Your task to perform on an android device: Show me productivity apps on the Play Store Image 0: 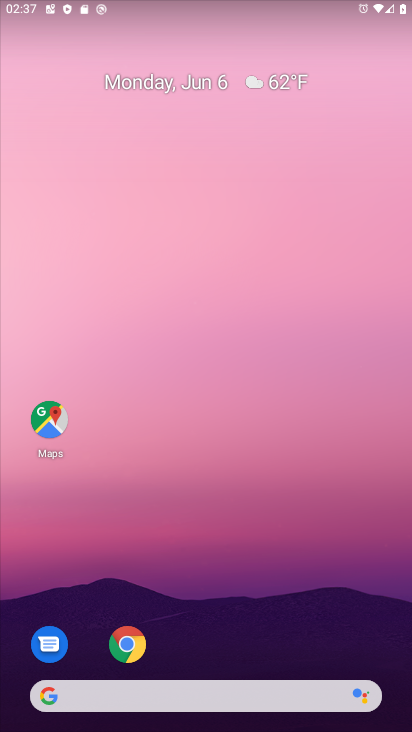
Step 0: drag from (144, 727) to (54, 108)
Your task to perform on an android device: Show me productivity apps on the Play Store Image 1: 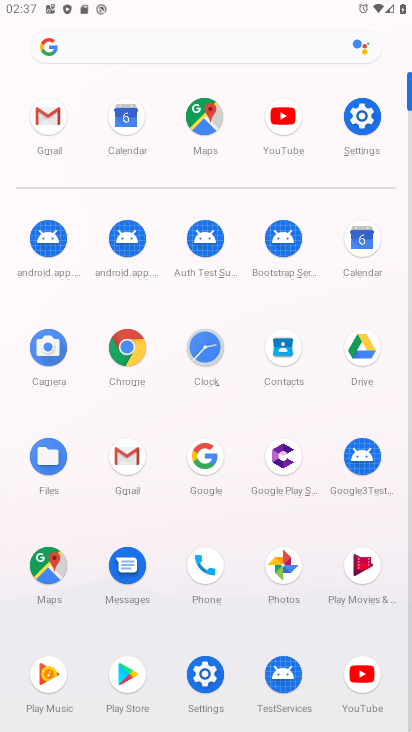
Step 1: click (125, 686)
Your task to perform on an android device: Show me productivity apps on the Play Store Image 2: 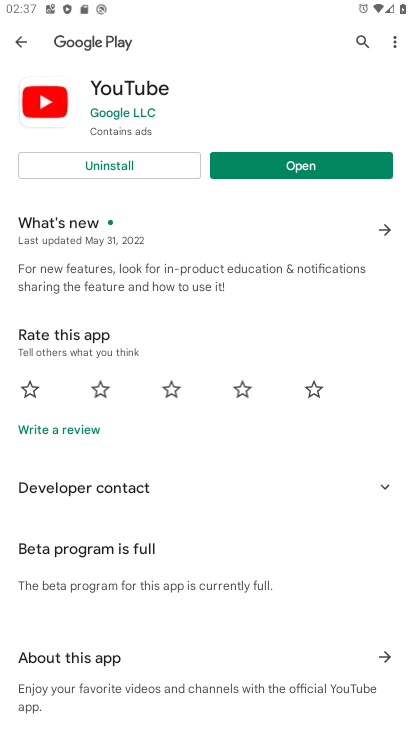
Step 2: click (20, 50)
Your task to perform on an android device: Show me productivity apps on the Play Store Image 3: 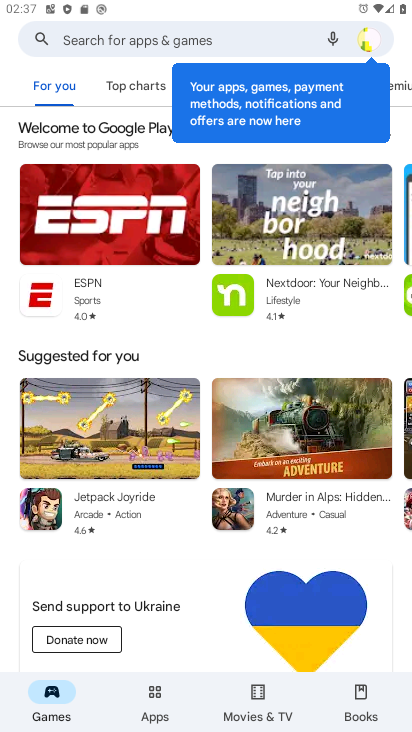
Step 3: click (160, 710)
Your task to perform on an android device: Show me productivity apps on the Play Store Image 4: 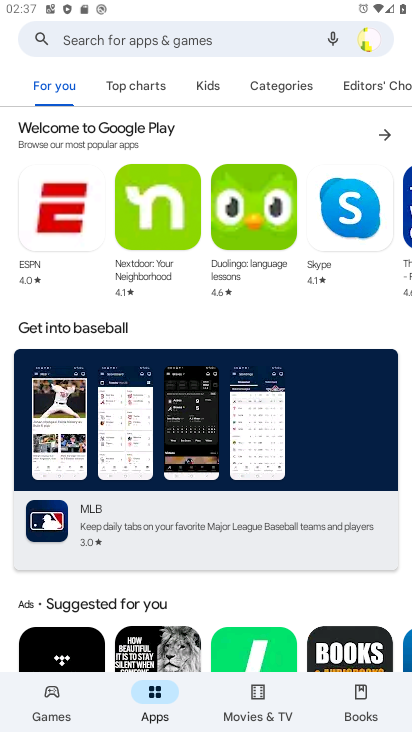
Step 4: click (276, 88)
Your task to perform on an android device: Show me productivity apps on the Play Store Image 5: 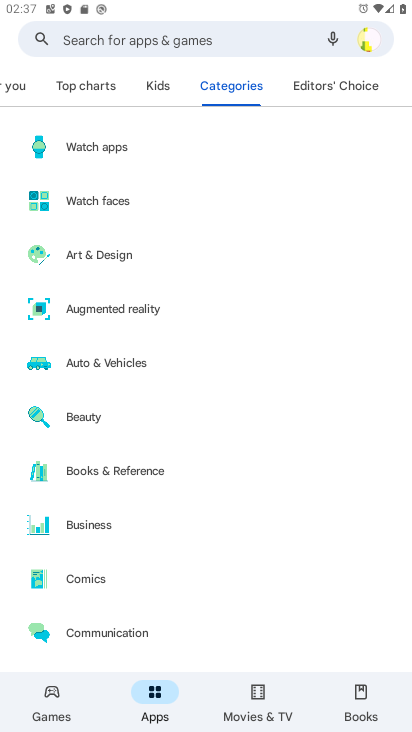
Step 5: drag from (228, 625) to (139, 166)
Your task to perform on an android device: Show me productivity apps on the Play Store Image 6: 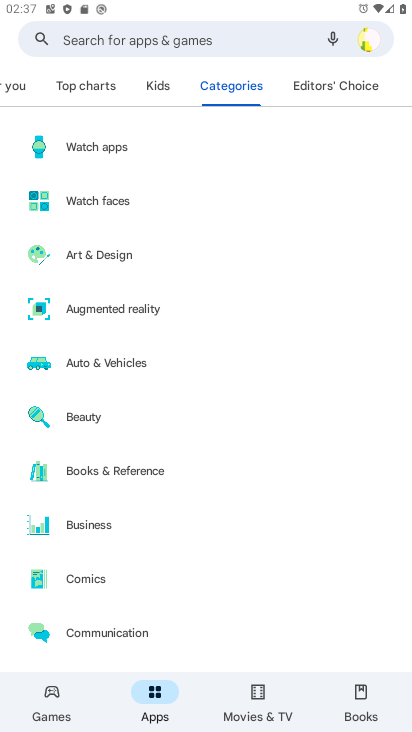
Step 6: drag from (242, 639) to (234, 162)
Your task to perform on an android device: Show me productivity apps on the Play Store Image 7: 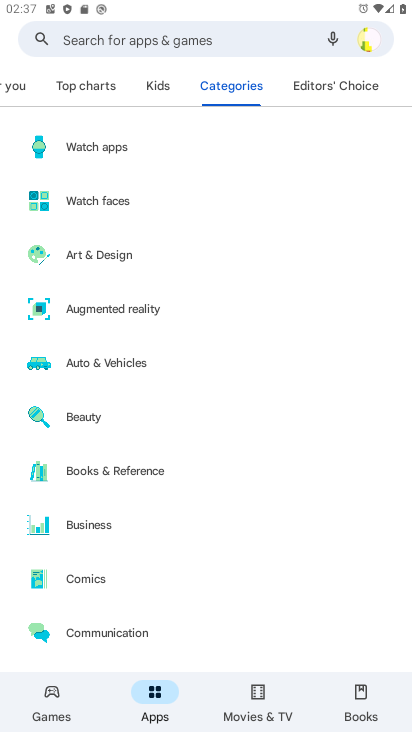
Step 7: drag from (238, 626) to (247, 165)
Your task to perform on an android device: Show me productivity apps on the Play Store Image 8: 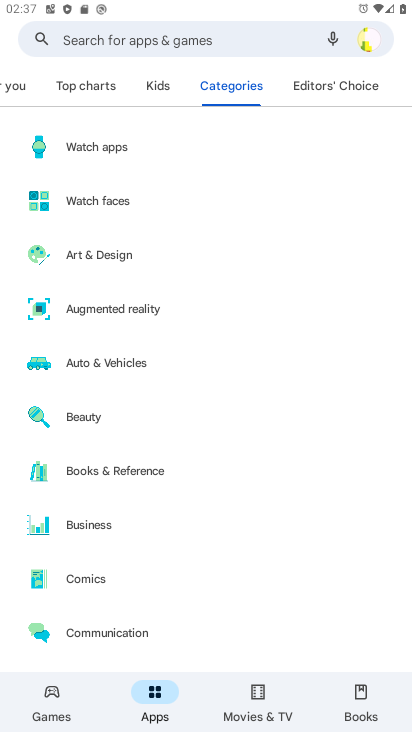
Step 8: drag from (250, 622) to (217, 129)
Your task to perform on an android device: Show me productivity apps on the Play Store Image 9: 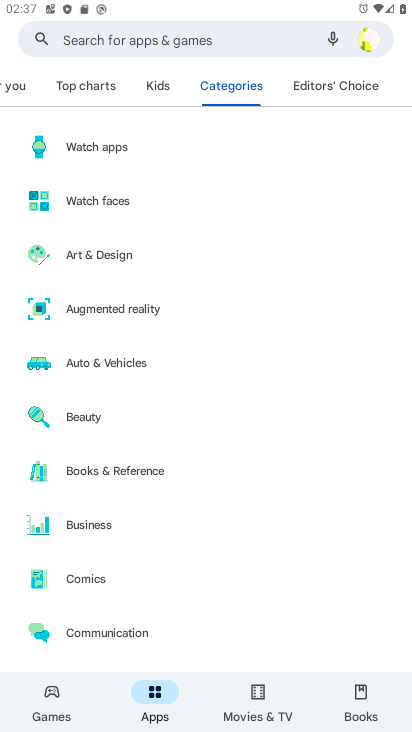
Step 9: drag from (189, 638) to (159, 176)
Your task to perform on an android device: Show me productivity apps on the Play Store Image 10: 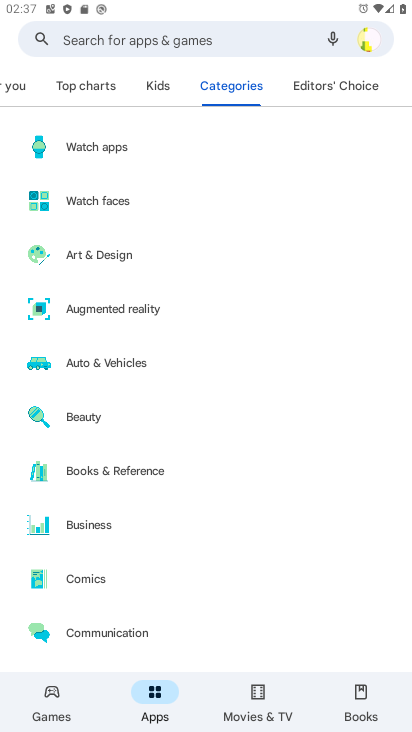
Step 10: drag from (160, 638) to (139, 168)
Your task to perform on an android device: Show me productivity apps on the Play Store Image 11: 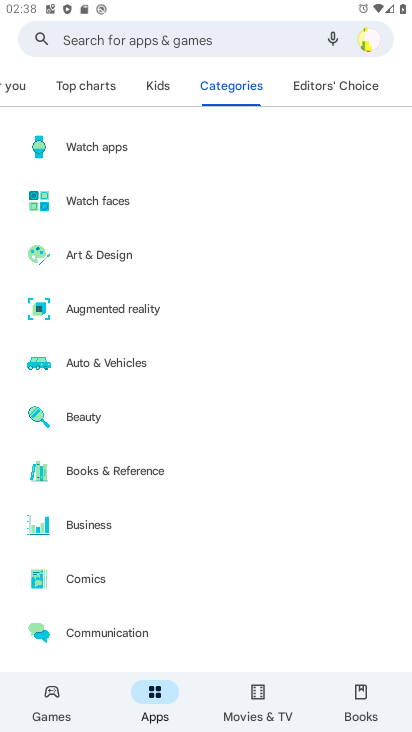
Step 11: drag from (177, 630) to (185, 179)
Your task to perform on an android device: Show me productivity apps on the Play Store Image 12: 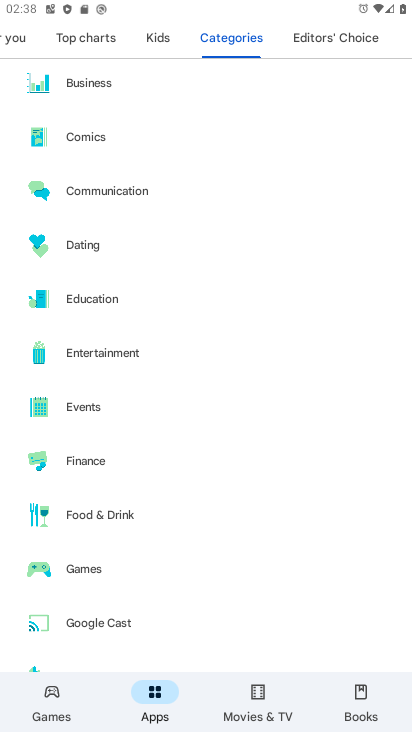
Step 12: drag from (206, 635) to (144, 119)
Your task to perform on an android device: Show me productivity apps on the Play Store Image 13: 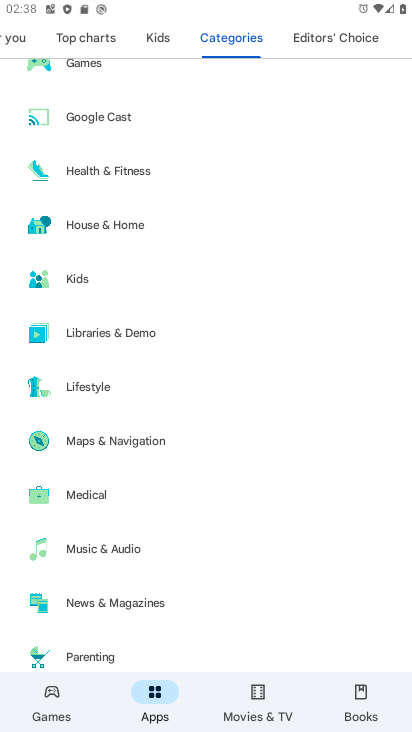
Step 13: drag from (165, 625) to (170, 166)
Your task to perform on an android device: Show me productivity apps on the Play Store Image 14: 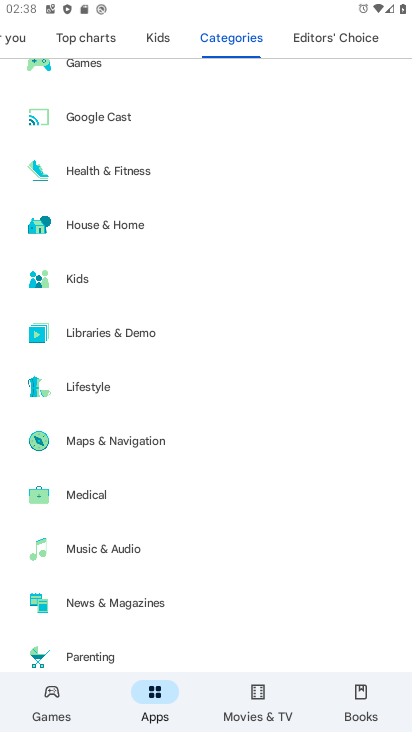
Step 14: drag from (168, 630) to (149, 231)
Your task to perform on an android device: Show me productivity apps on the Play Store Image 15: 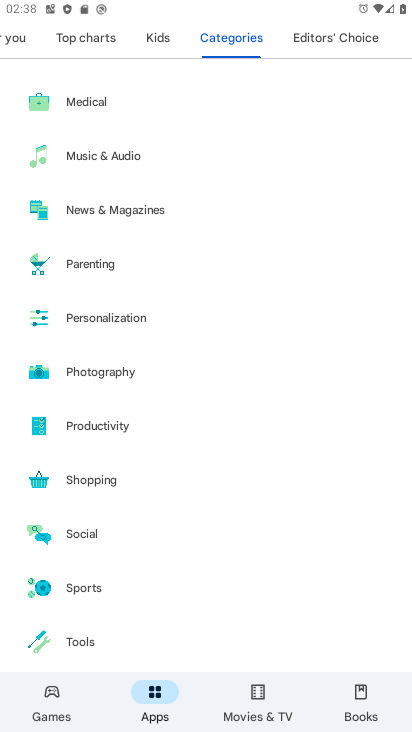
Step 15: click (93, 428)
Your task to perform on an android device: Show me productivity apps on the Play Store Image 16: 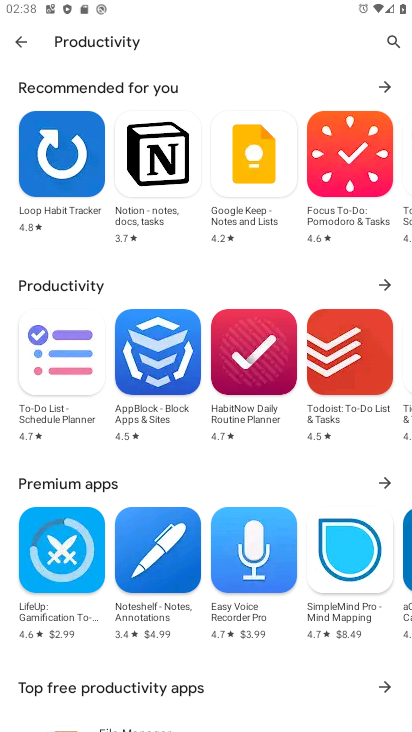
Step 16: task complete